Your task to perform on an android device: choose inbox layout in the gmail app Image 0: 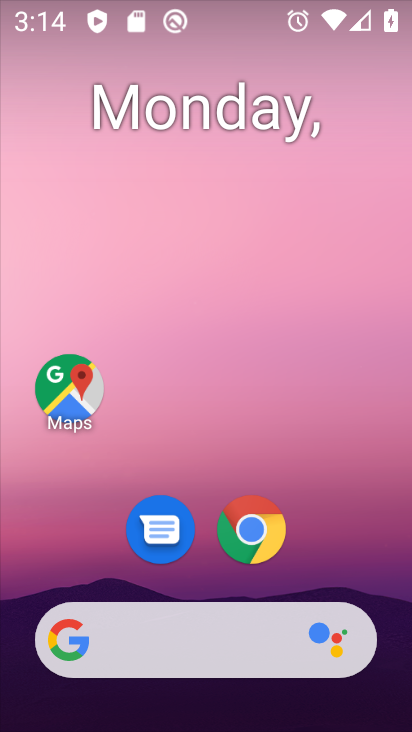
Step 0: drag from (199, 569) to (246, 18)
Your task to perform on an android device: choose inbox layout in the gmail app Image 1: 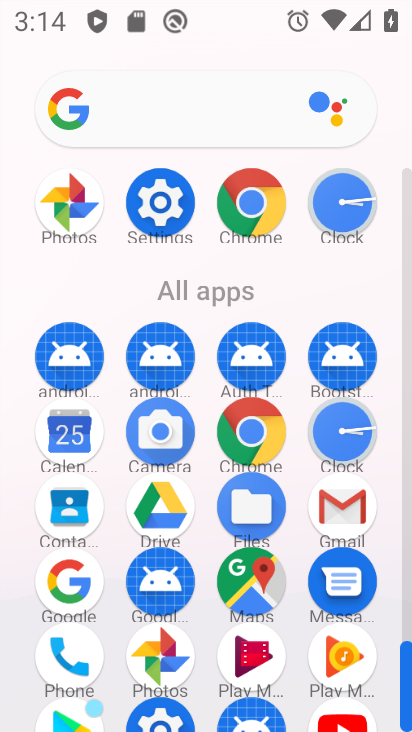
Step 1: click (335, 505)
Your task to perform on an android device: choose inbox layout in the gmail app Image 2: 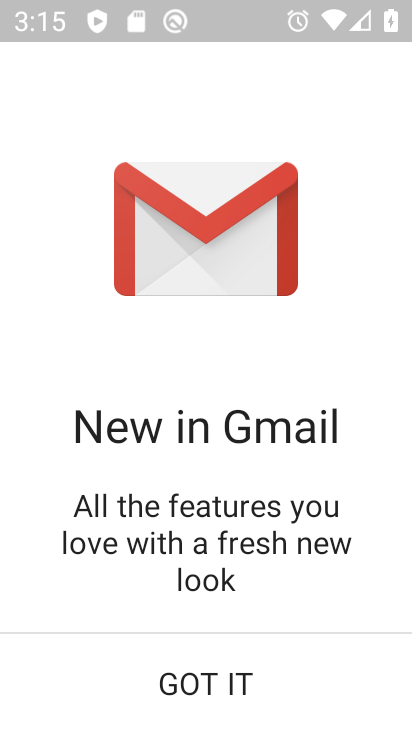
Step 2: click (250, 683)
Your task to perform on an android device: choose inbox layout in the gmail app Image 3: 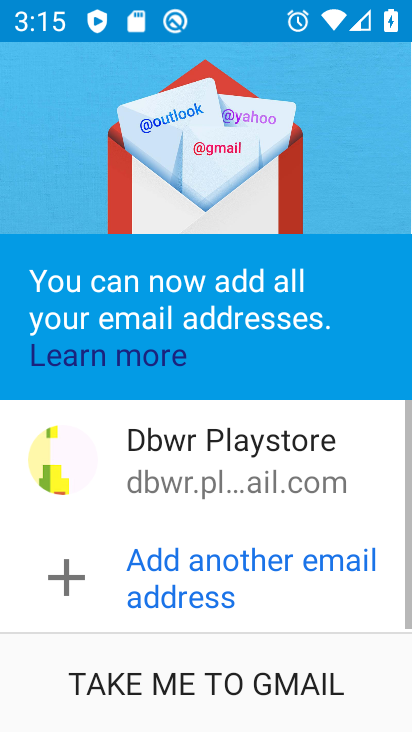
Step 3: click (250, 683)
Your task to perform on an android device: choose inbox layout in the gmail app Image 4: 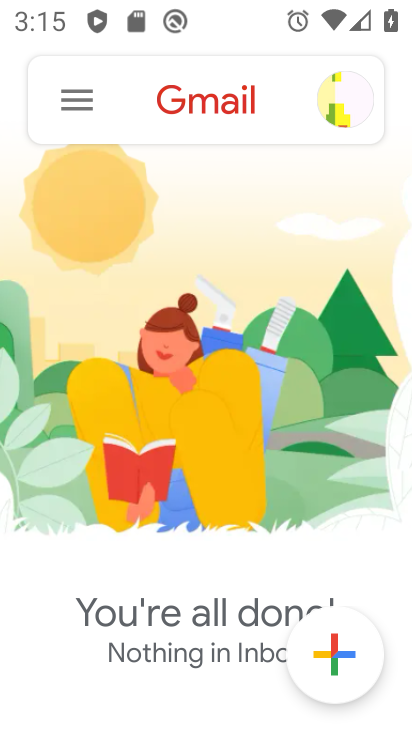
Step 4: click (66, 94)
Your task to perform on an android device: choose inbox layout in the gmail app Image 5: 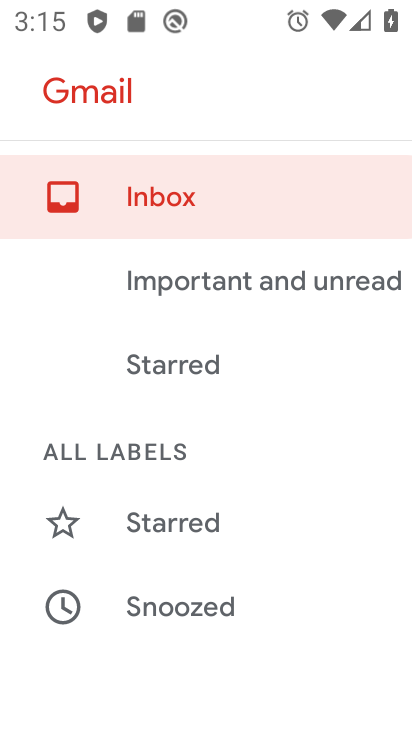
Step 5: drag from (145, 561) to (220, 104)
Your task to perform on an android device: choose inbox layout in the gmail app Image 6: 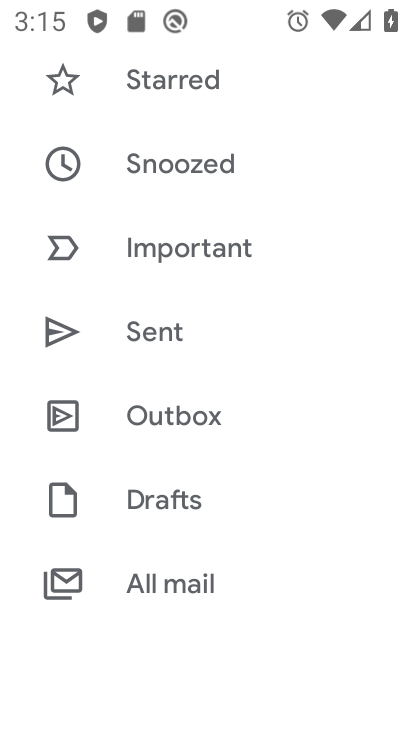
Step 6: drag from (173, 531) to (260, 16)
Your task to perform on an android device: choose inbox layout in the gmail app Image 7: 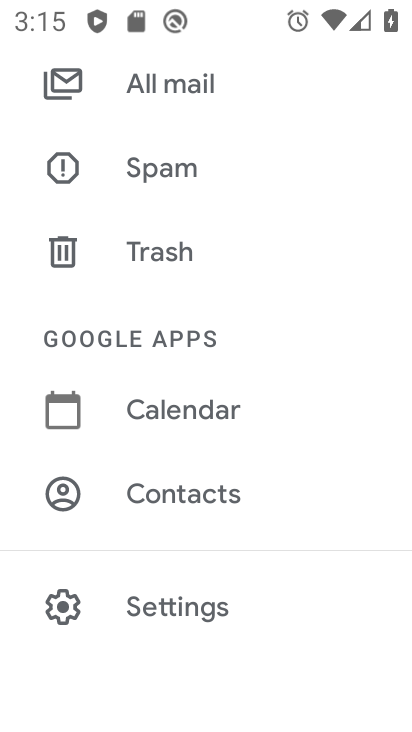
Step 7: click (154, 594)
Your task to perform on an android device: choose inbox layout in the gmail app Image 8: 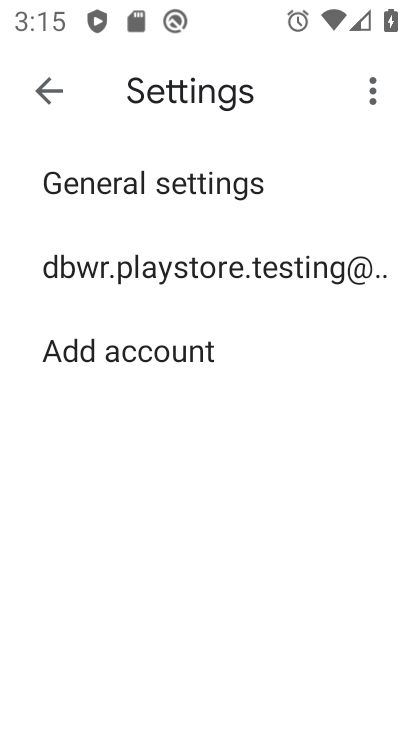
Step 8: click (157, 269)
Your task to perform on an android device: choose inbox layout in the gmail app Image 9: 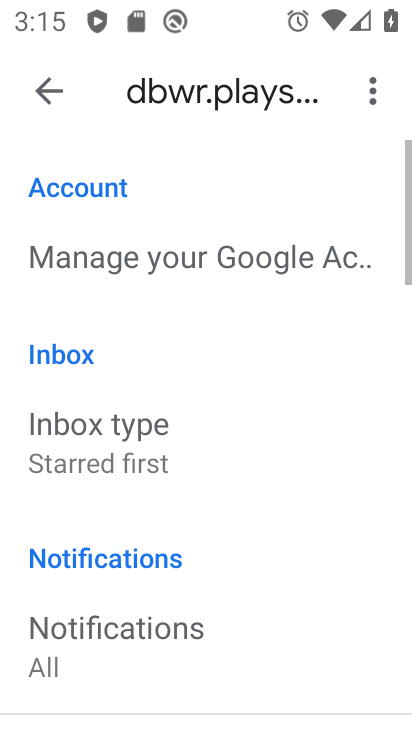
Step 9: click (110, 450)
Your task to perform on an android device: choose inbox layout in the gmail app Image 10: 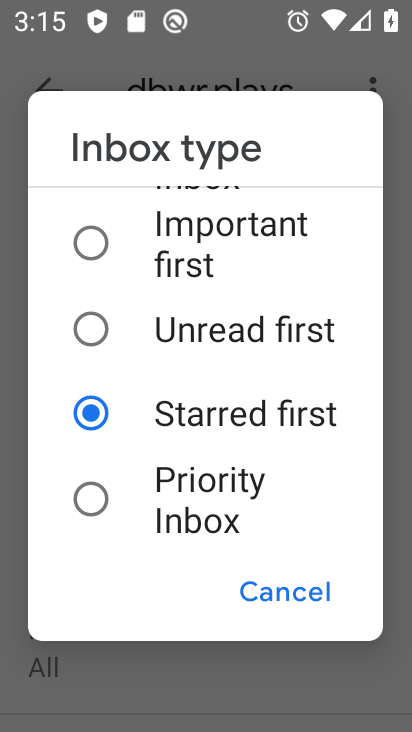
Step 10: drag from (143, 267) to (131, 707)
Your task to perform on an android device: choose inbox layout in the gmail app Image 11: 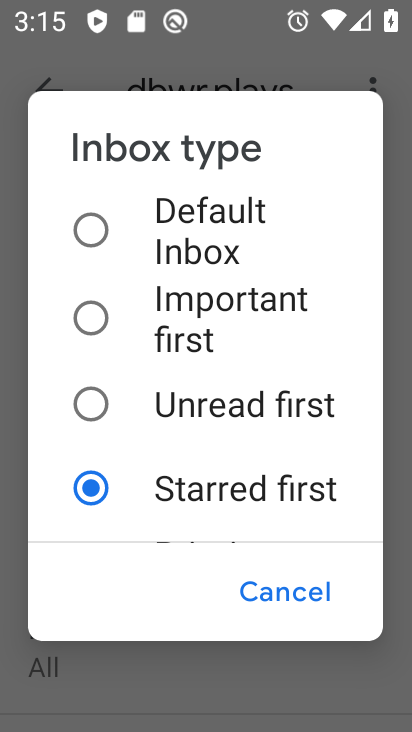
Step 11: click (107, 232)
Your task to perform on an android device: choose inbox layout in the gmail app Image 12: 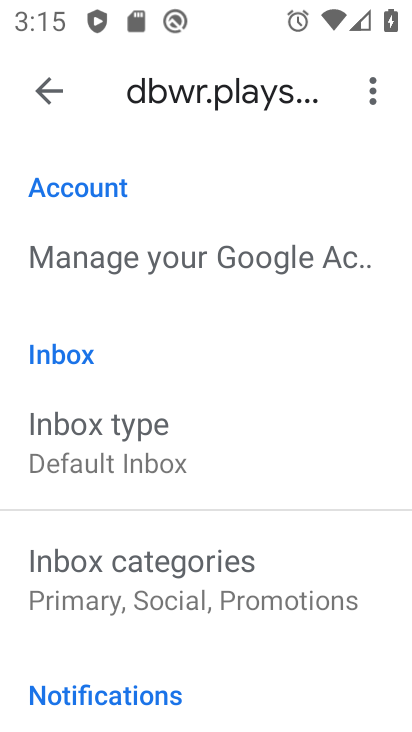
Step 12: task complete